Your task to perform on an android device: Open the phone app and click the voicemail tab. Image 0: 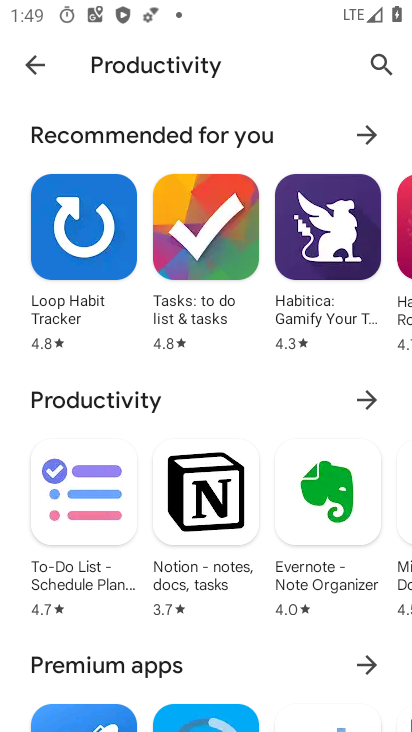
Step 0: press home button
Your task to perform on an android device: Open the phone app and click the voicemail tab. Image 1: 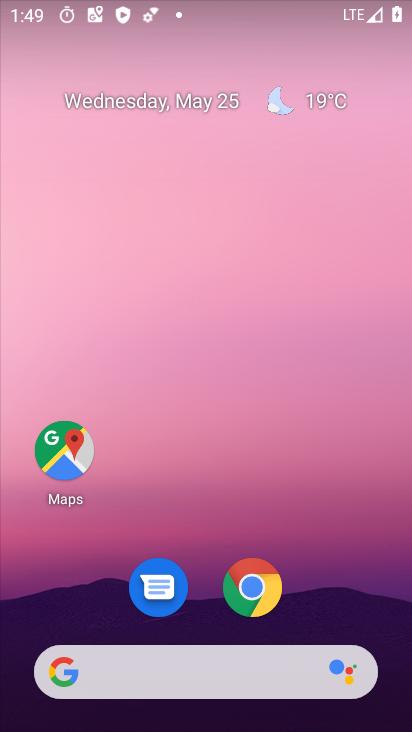
Step 1: drag from (201, 717) to (201, 255)
Your task to perform on an android device: Open the phone app and click the voicemail tab. Image 2: 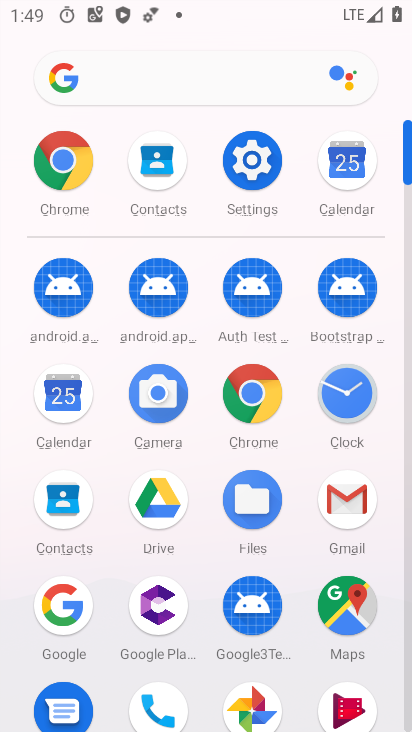
Step 2: click (151, 693)
Your task to perform on an android device: Open the phone app and click the voicemail tab. Image 3: 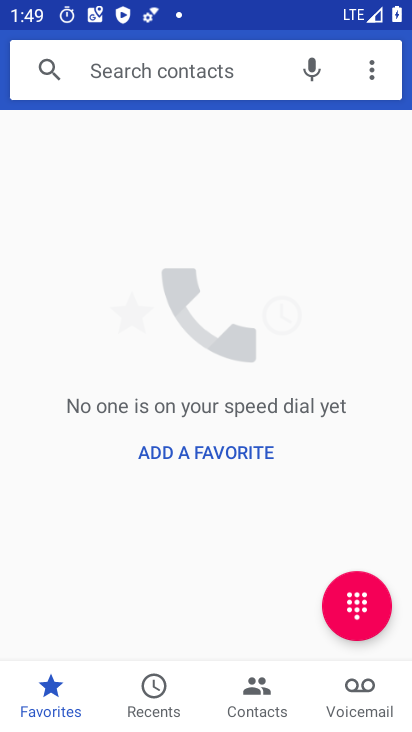
Step 3: click (353, 703)
Your task to perform on an android device: Open the phone app and click the voicemail tab. Image 4: 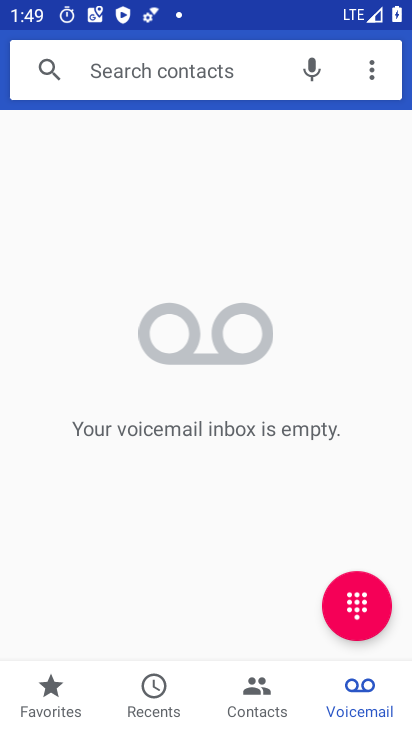
Step 4: task complete